Your task to perform on an android device: Show me popular games on the Play Store Image 0: 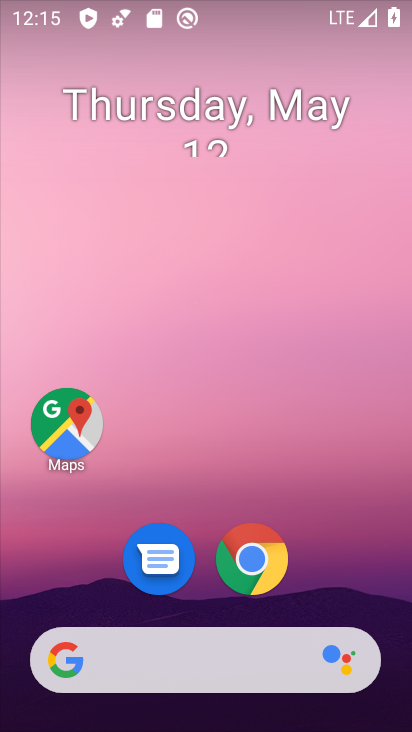
Step 0: drag from (43, 638) to (217, 167)
Your task to perform on an android device: Show me popular games on the Play Store Image 1: 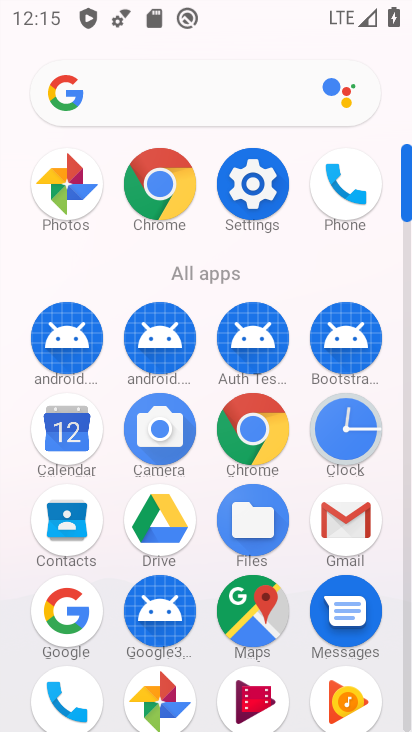
Step 1: drag from (90, 667) to (168, 430)
Your task to perform on an android device: Show me popular games on the Play Store Image 2: 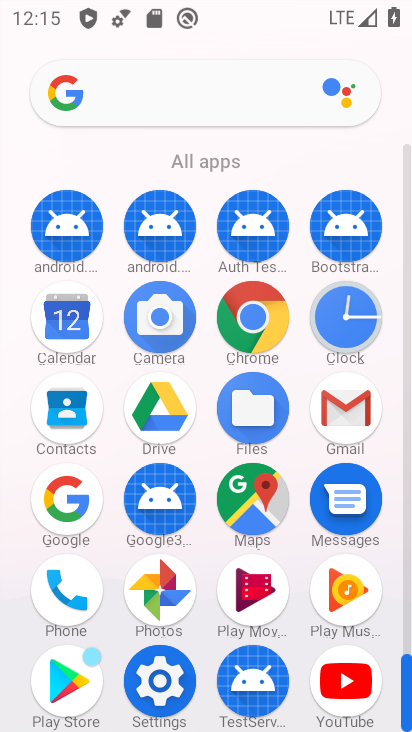
Step 2: click (81, 672)
Your task to perform on an android device: Show me popular games on the Play Store Image 3: 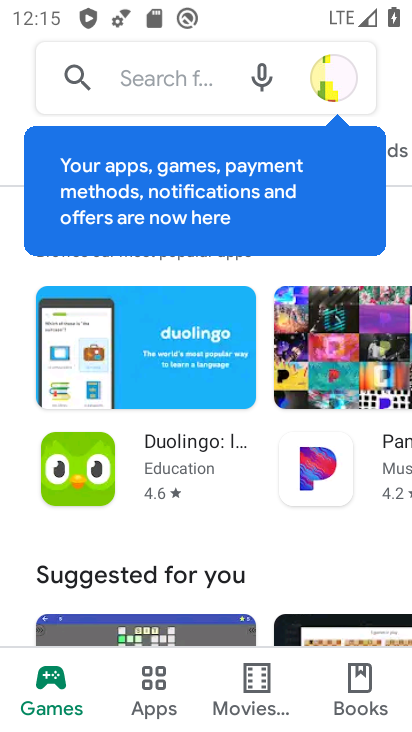
Step 3: drag from (233, 593) to (271, 427)
Your task to perform on an android device: Show me popular games on the Play Store Image 4: 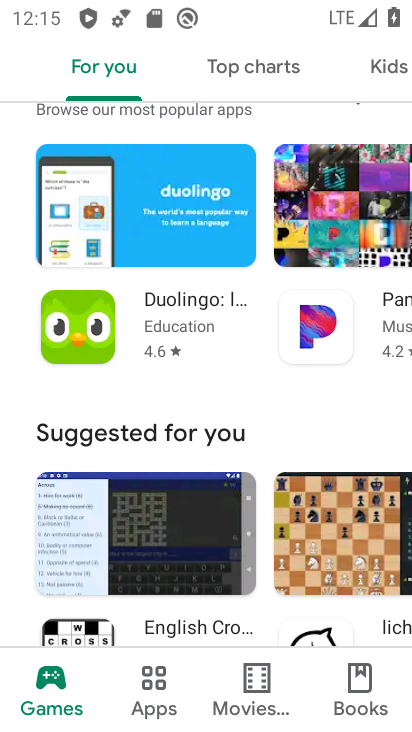
Step 4: drag from (209, 605) to (346, 142)
Your task to perform on an android device: Show me popular games on the Play Store Image 5: 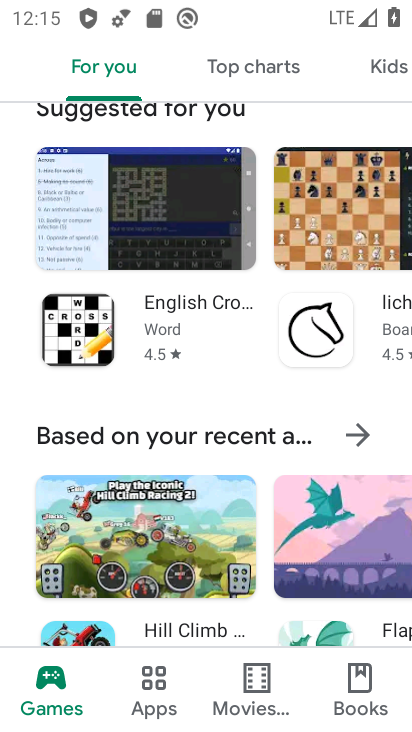
Step 5: drag from (212, 542) to (381, 56)
Your task to perform on an android device: Show me popular games on the Play Store Image 6: 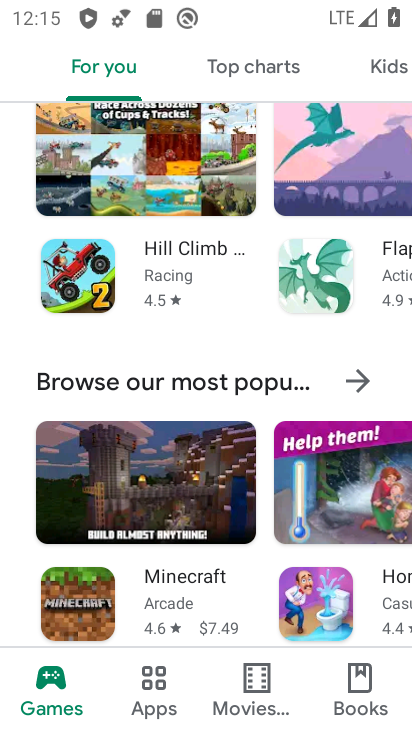
Step 6: click (373, 383)
Your task to perform on an android device: Show me popular games on the Play Store Image 7: 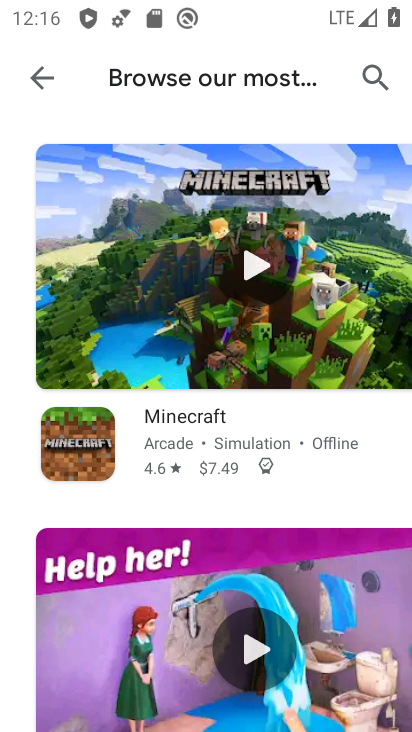
Step 7: task complete